Your task to perform on an android device: What's on my calendar today? Image 0: 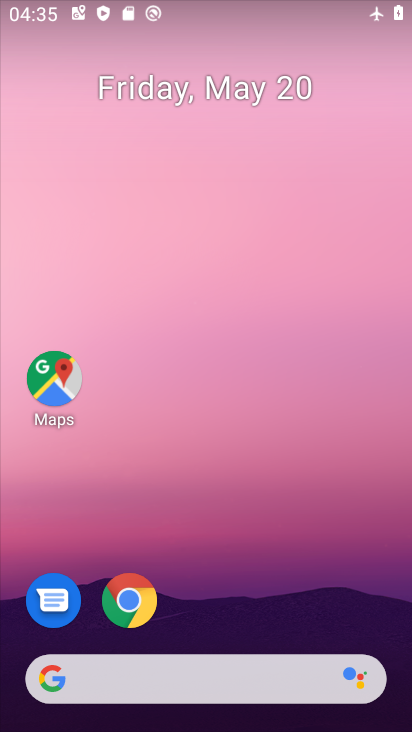
Step 0: drag from (258, 547) to (233, 47)
Your task to perform on an android device: What's on my calendar today? Image 1: 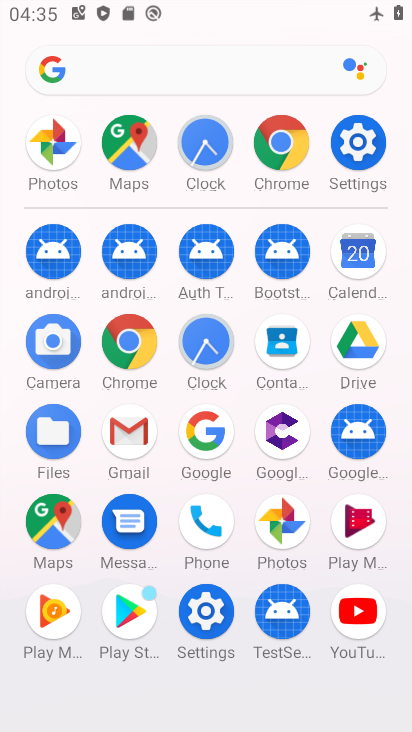
Step 1: drag from (2, 553) to (22, 254)
Your task to perform on an android device: What's on my calendar today? Image 2: 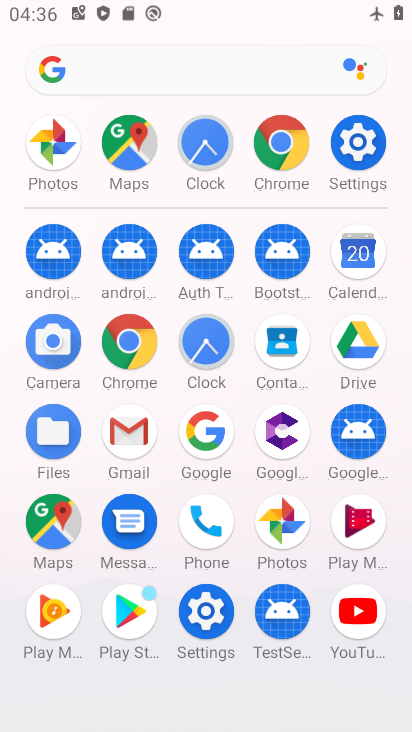
Step 2: click (355, 253)
Your task to perform on an android device: What's on my calendar today? Image 3: 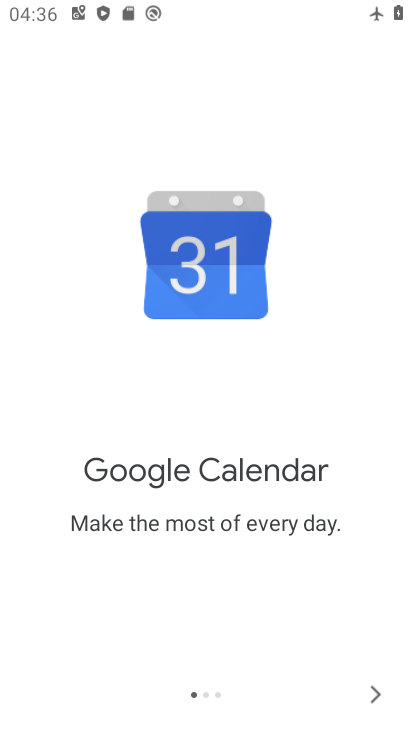
Step 3: click (378, 693)
Your task to perform on an android device: What's on my calendar today? Image 4: 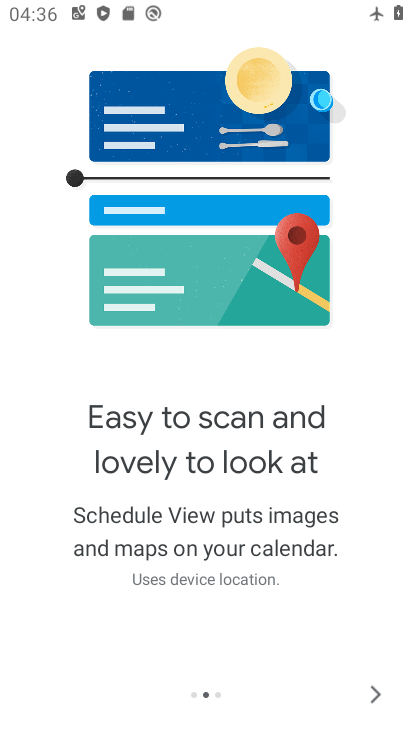
Step 4: click (377, 693)
Your task to perform on an android device: What's on my calendar today? Image 5: 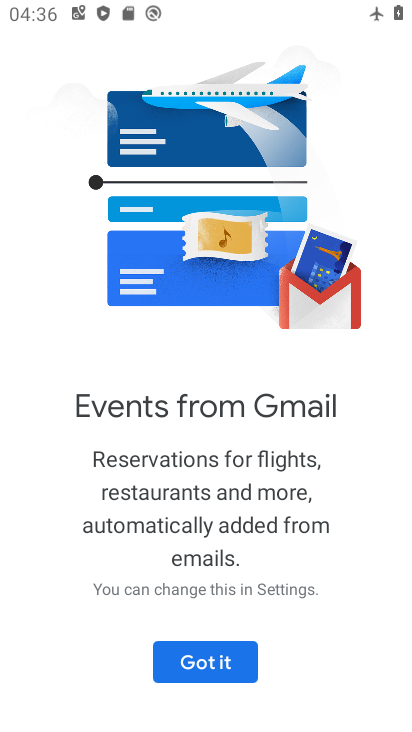
Step 5: click (221, 673)
Your task to perform on an android device: What's on my calendar today? Image 6: 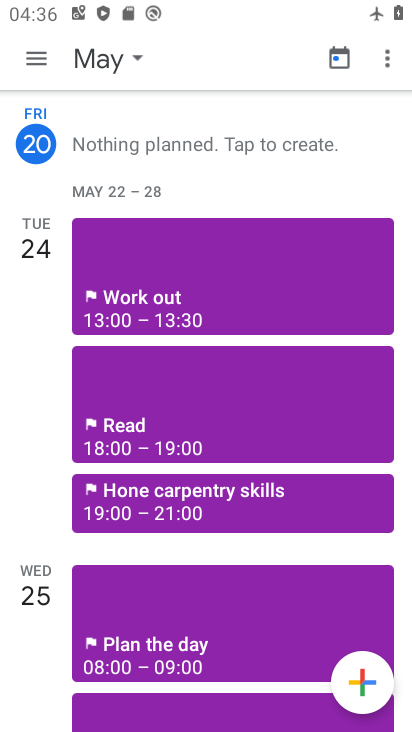
Step 6: click (31, 46)
Your task to perform on an android device: What's on my calendar today? Image 7: 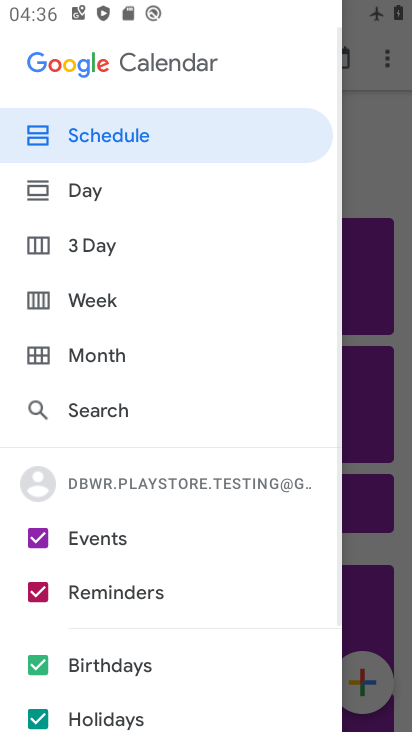
Step 7: click (93, 185)
Your task to perform on an android device: What's on my calendar today? Image 8: 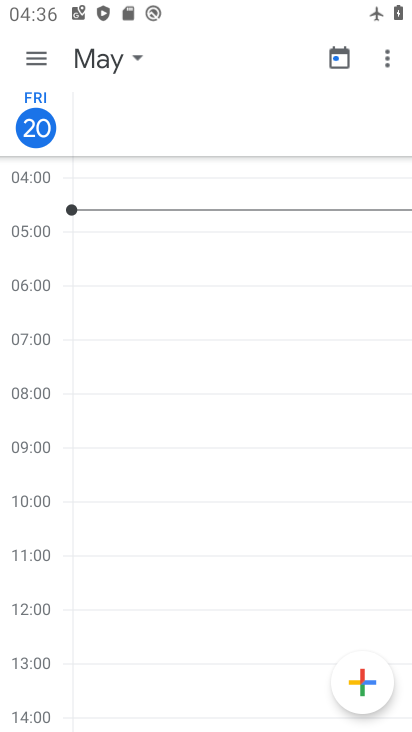
Step 8: task complete